Your task to perform on an android device: What's the news in Nepal? Image 0: 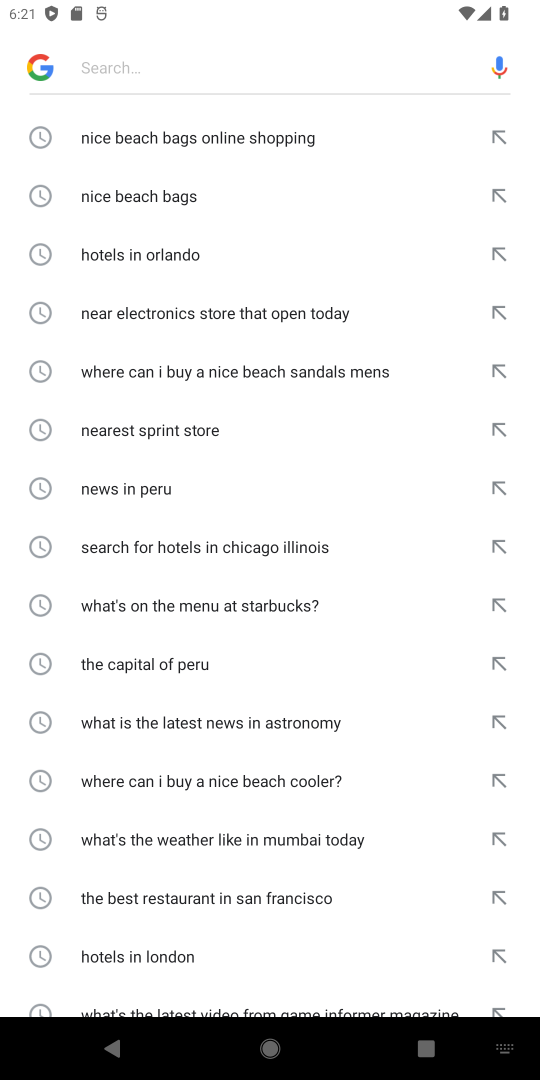
Step 0: press home button
Your task to perform on an android device: What's the news in Nepal? Image 1: 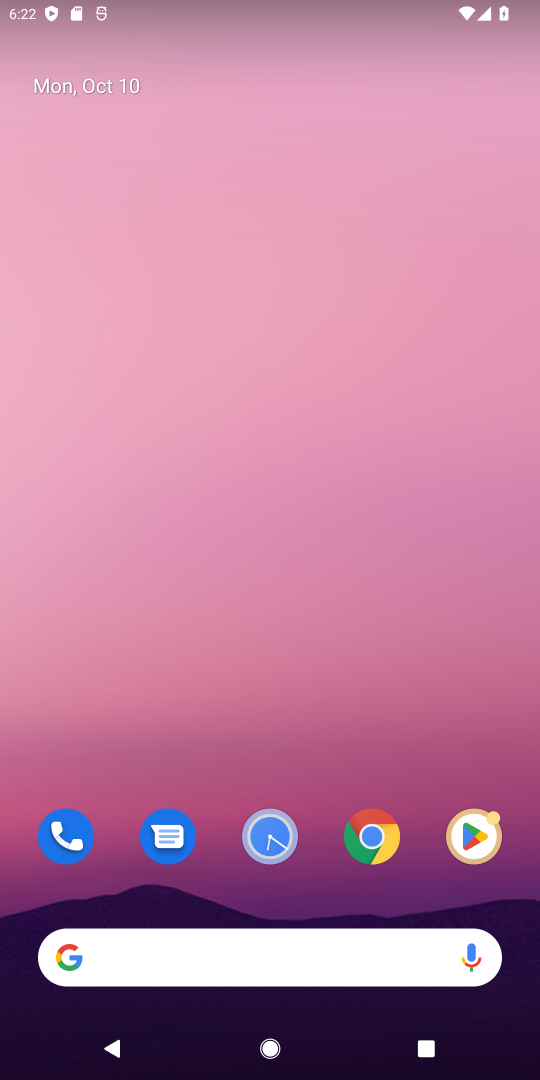
Step 1: click (369, 838)
Your task to perform on an android device: What's the news in Nepal? Image 2: 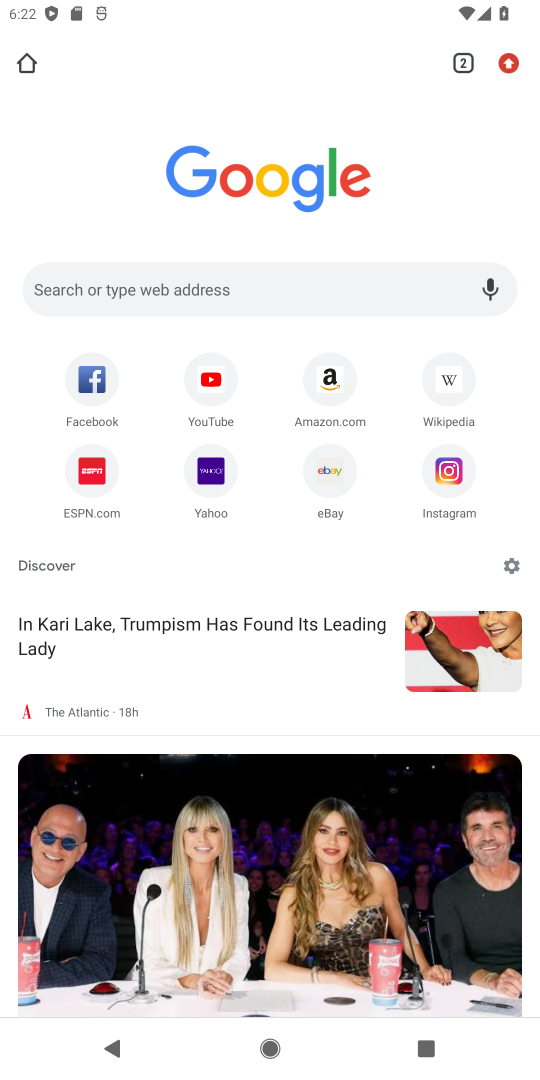
Step 2: click (135, 279)
Your task to perform on an android device: What's the news in Nepal? Image 3: 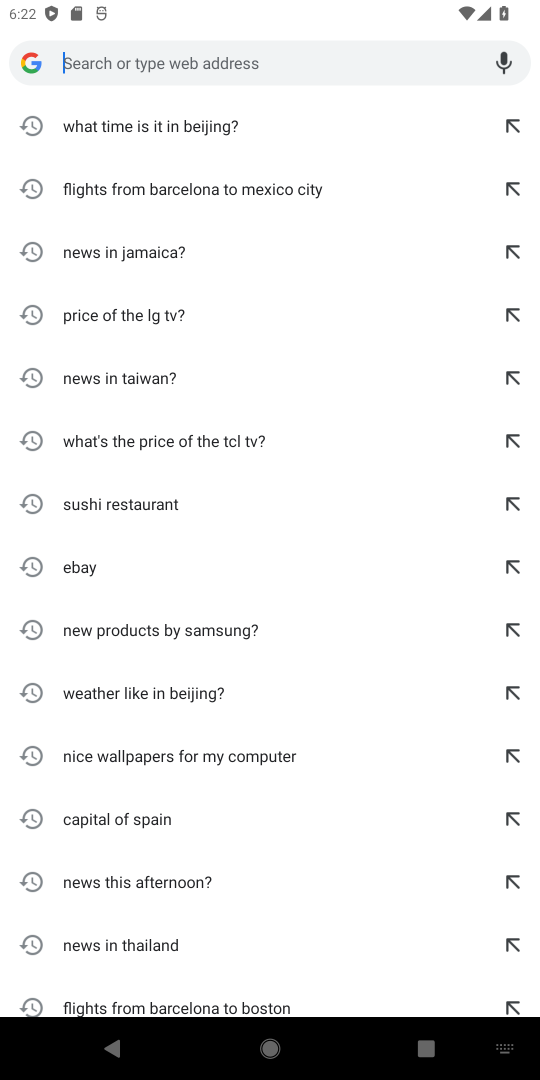
Step 3: type "news in Nepal?"
Your task to perform on an android device: What's the news in Nepal? Image 4: 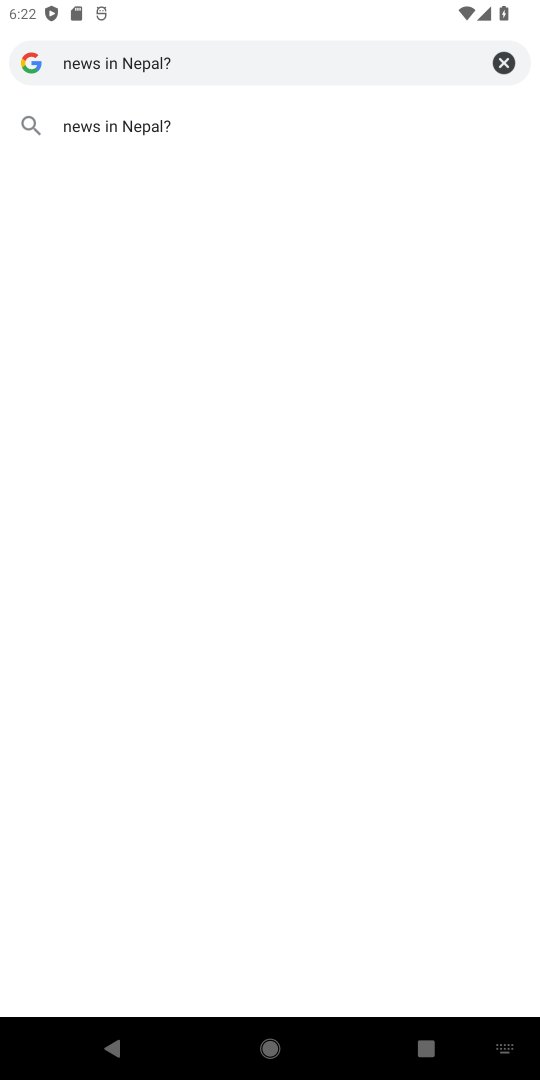
Step 4: click (109, 126)
Your task to perform on an android device: What's the news in Nepal? Image 5: 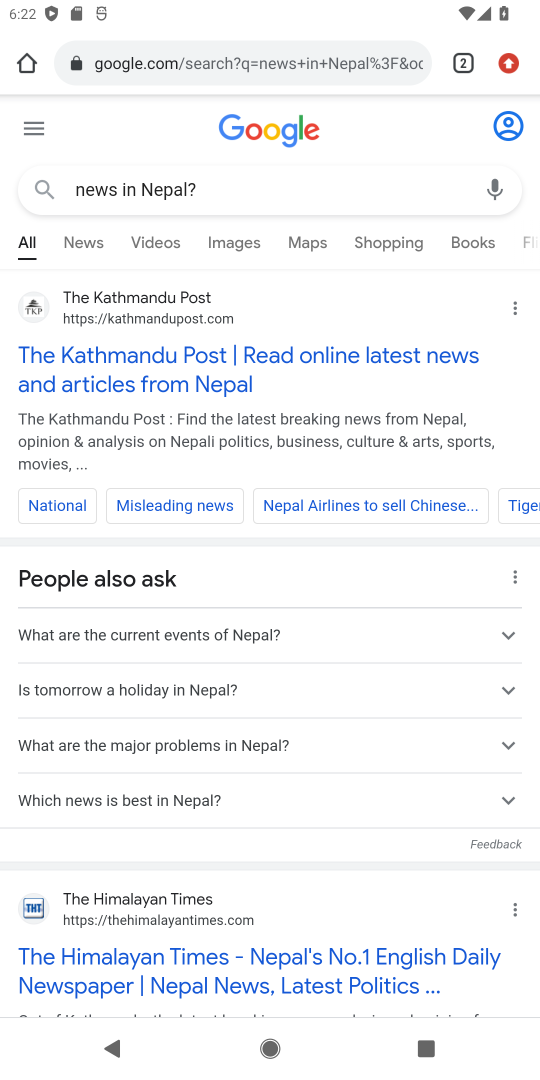
Step 5: click (121, 360)
Your task to perform on an android device: What's the news in Nepal? Image 6: 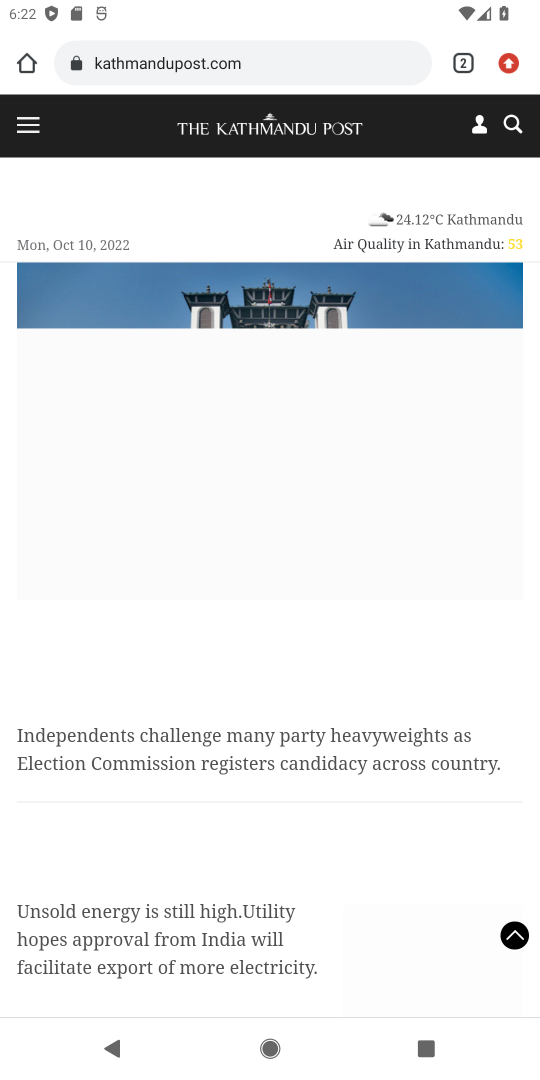
Step 6: drag from (222, 415) to (244, 192)
Your task to perform on an android device: What's the news in Nepal? Image 7: 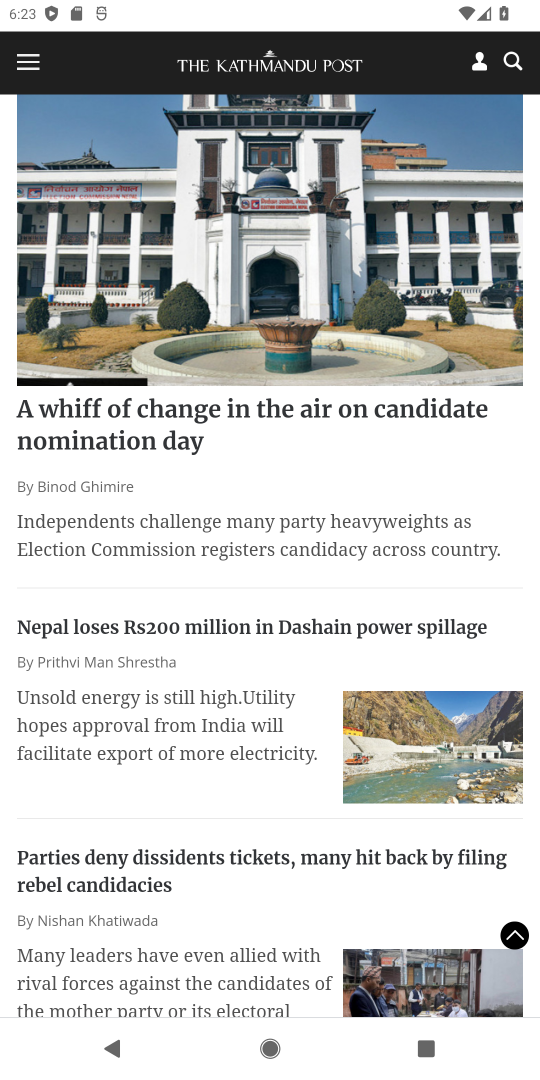
Step 7: click (103, 418)
Your task to perform on an android device: What's the news in Nepal? Image 8: 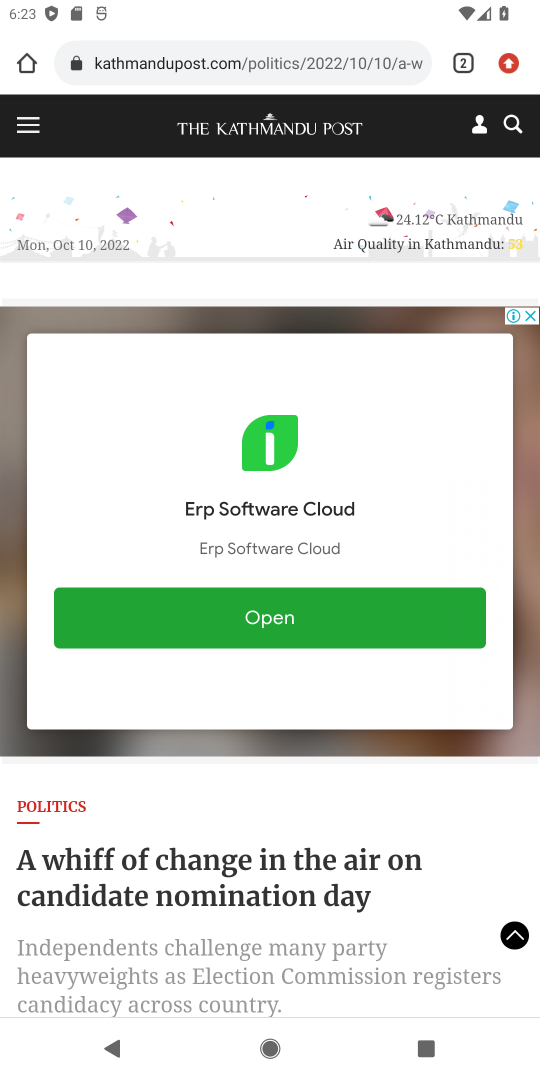
Step 8: drag from (317, 790) to (328, 183)
Your task to perform on an android device: What's the news in Nepal? Image 9: 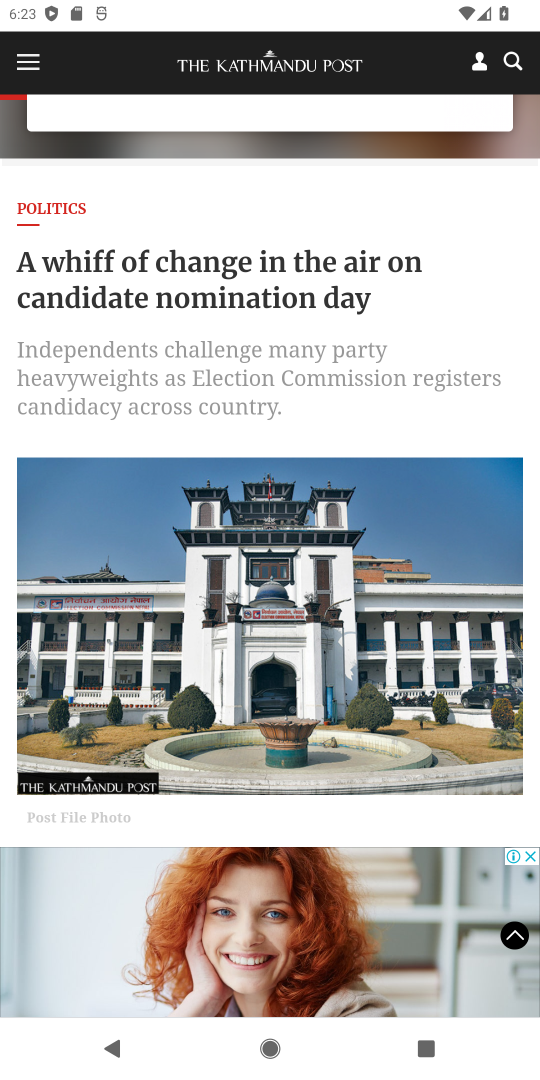
Step 9: drag from (262, 748) to (275, 235)
Your task to perform on an android device: What's the news in Nepal? Image 10: 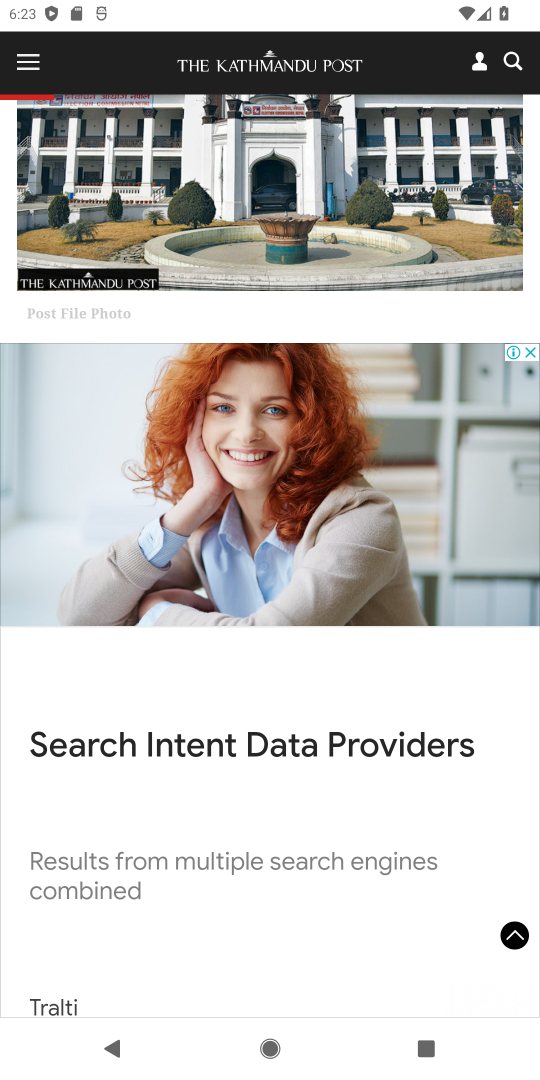
Step 10: drag from (249, 742) to (245, 283)
Your task to perform on an android device: What's the news in Nepal? Image 11: 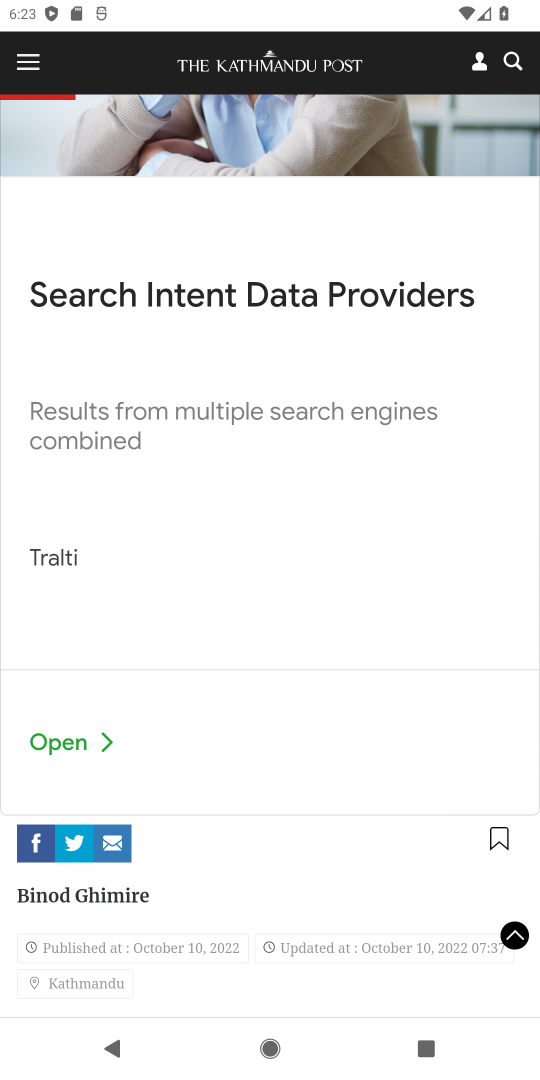
Step 11: drag from (224, 333) to (208, 812)
Your task to perform on an android device: What's the news in Nepal? Image 12: 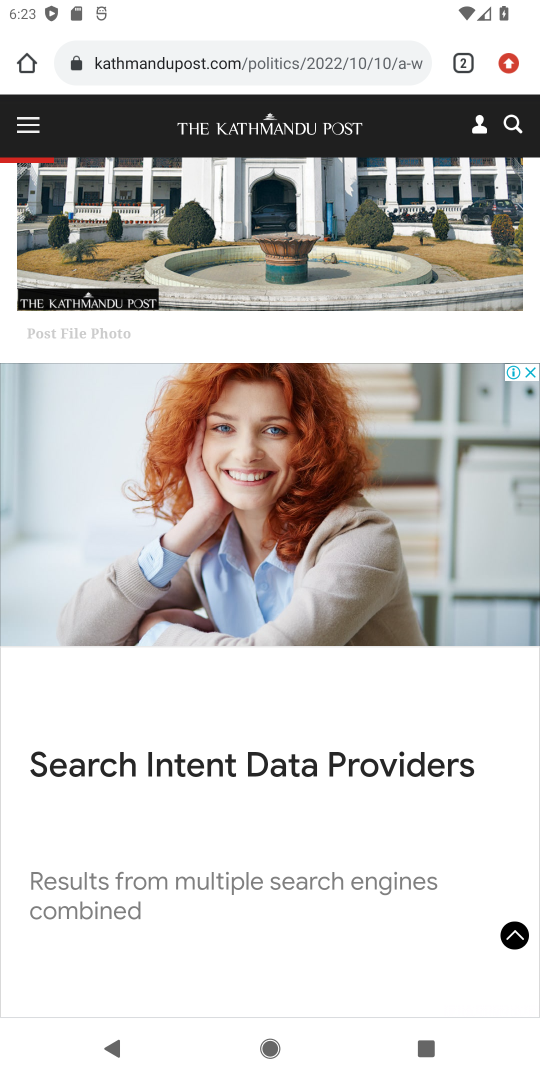
Step 12: drag from (228, 248) to (221, 897)
Your task to perform on an android device: What's the news in Nepal? Image 13: 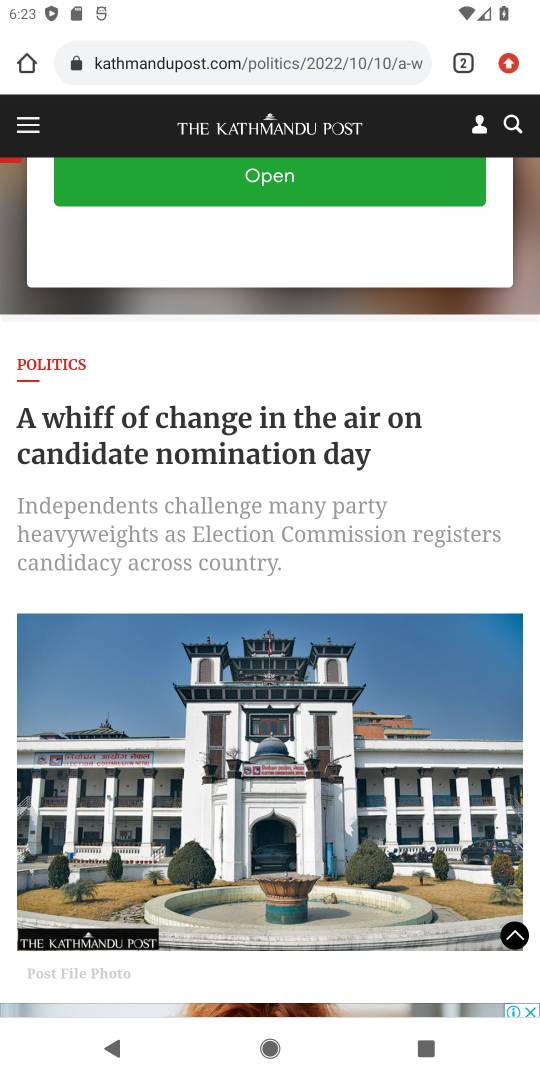
Step 13: click (161, 418)
Your task to perform on an android device: What's the news in Nepal? Image 14: 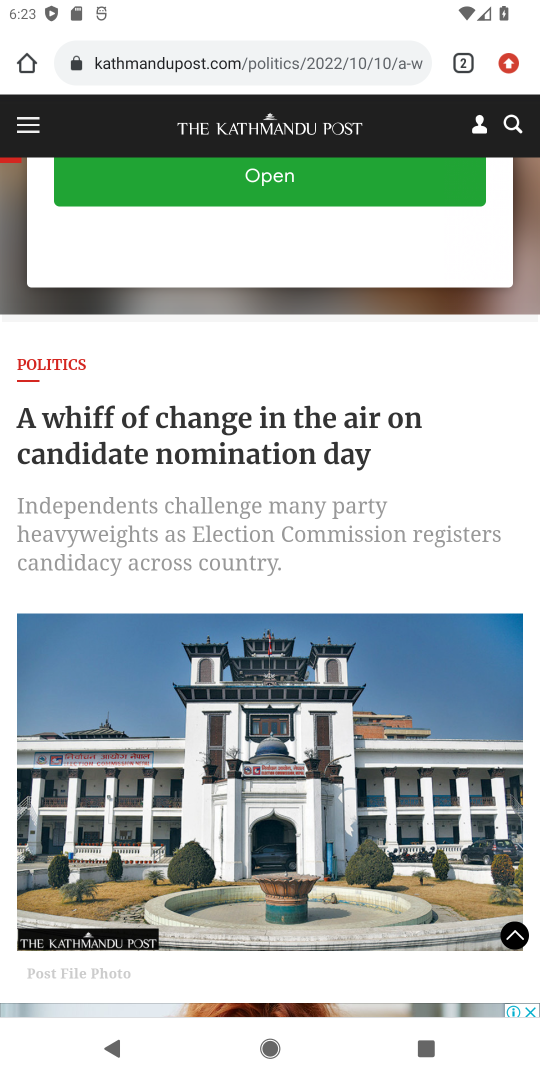
Step 14: task complete